Your task to perform on an android device: Turn off the flashlight Image 0: 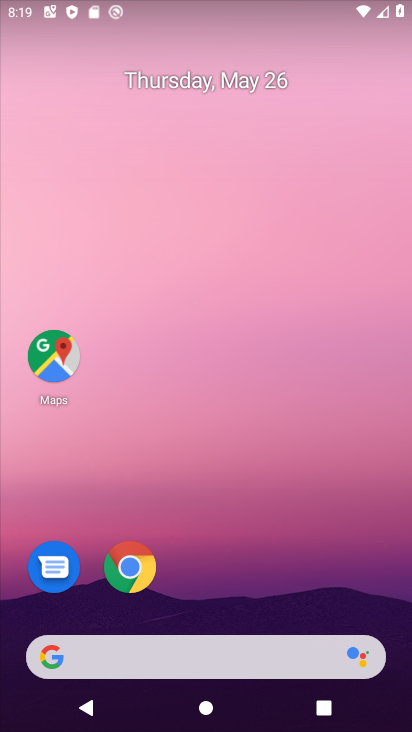
Step 0: drag from (294, 3) to (319, 446)
Your task to perform on an android device: Turn off the flashlight Image 1: 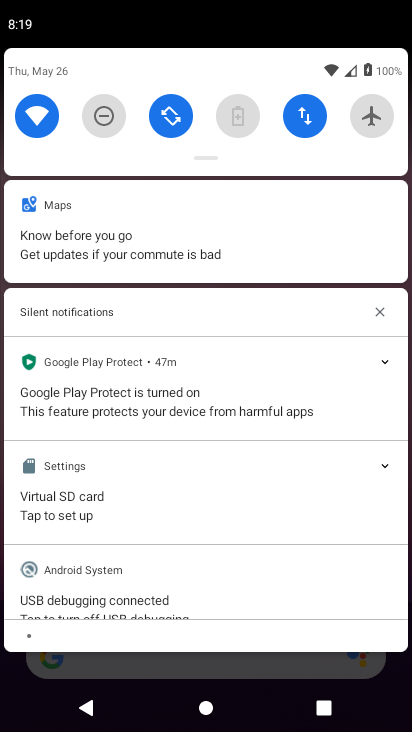
Step 1: task complete